Your task to perform on an android device: turn off priority inbox in the gmail app Image 0: 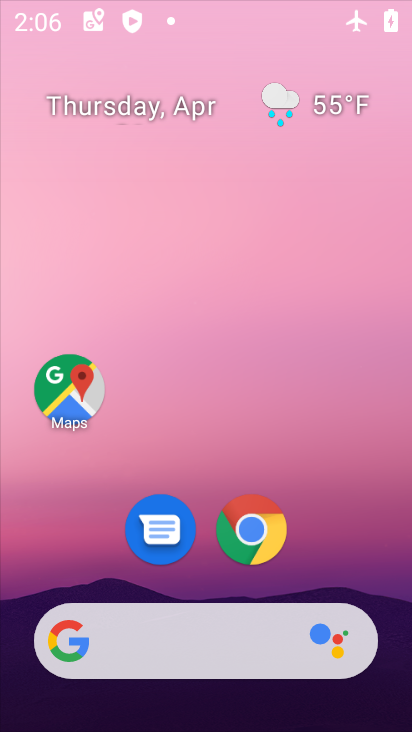
Step 0: drag from (206, 367) to (211, 262)
Your task to perform on an android device: turn off priority inbox in the gmail app Image 1: 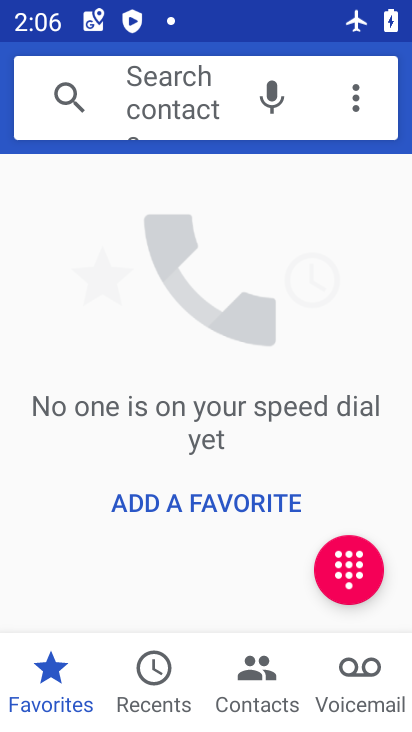
Step 1: press home button
Your task to perform on an android device: turn off priority inbox in the gmail app Image 2: 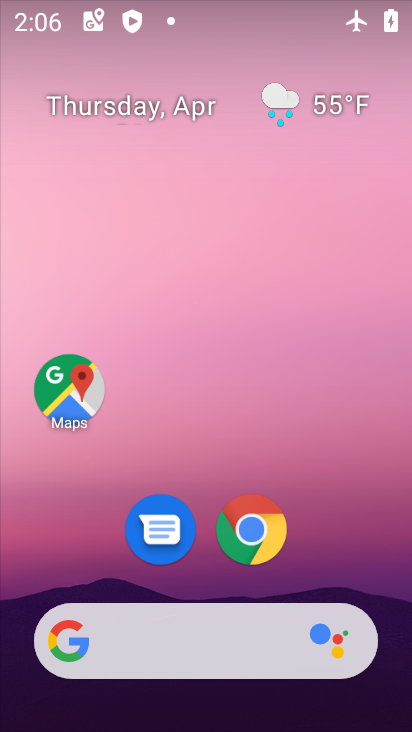
Step 2: drag from (233, 532) to (170, 175)
Your task to perform on an android device: turn off priority inbox in the gmail app Image 3: 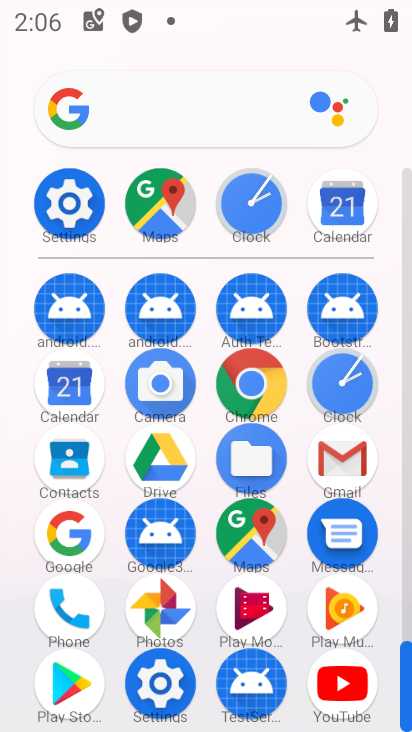
Step 3: click (342, 463)
Your task to perform on an android device: turn off priority inbox in the gmail app Image 4: 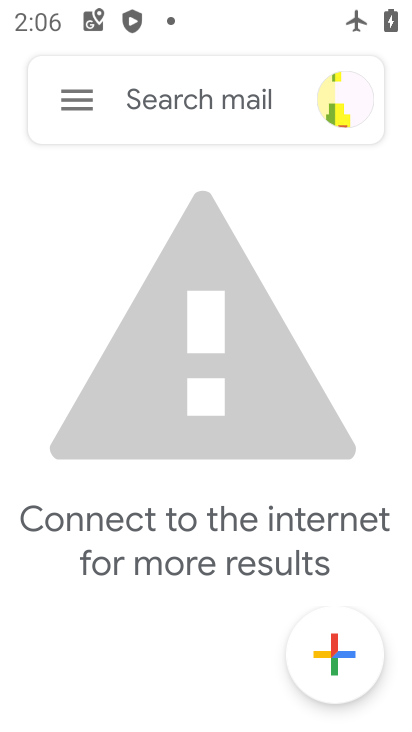
Step 4: click (69, 105)
Your task to perform on an android device: turn off priority inbox in the gmail app Image 5: 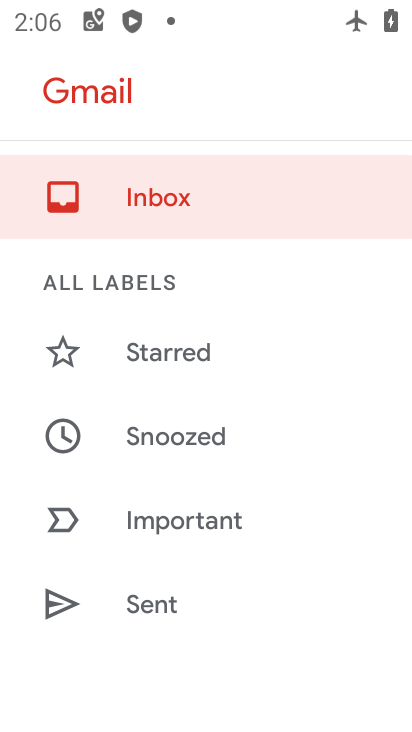
Step 5: drag from (220, 560) to (188, 234)
Your task to perform on an android device: turn off priority inbox in the gmail app Image 6: 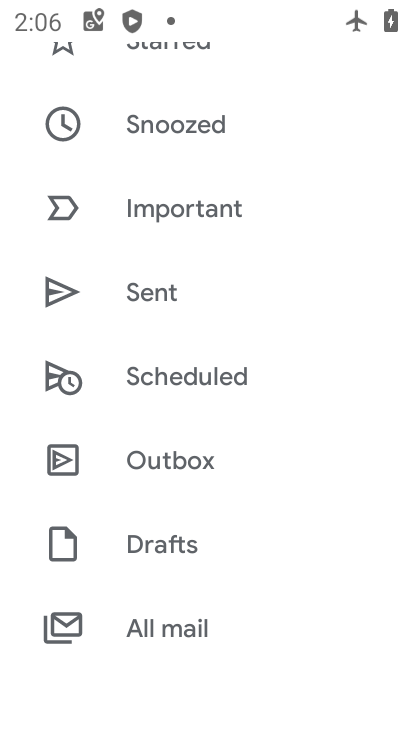
Step 6: drag from (205, 595) to (201, 292)
Your task to perform on an android device: turn off priority inbox in the gmail app Image 7: 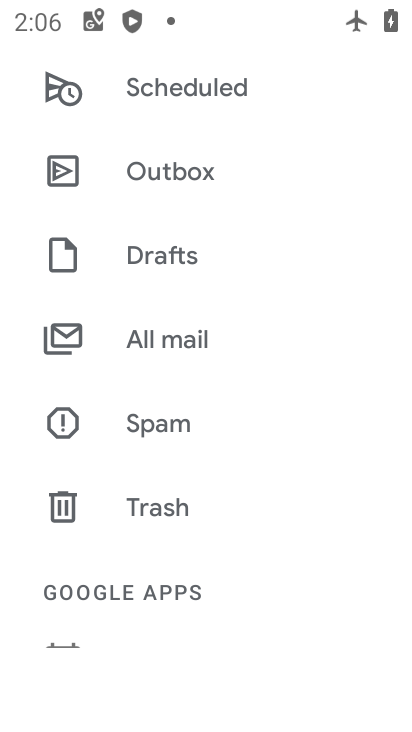
Step 7: drag from (225, 601) to (214, 252)
Your task to perform on an android device: turn off priority inbox in the gmail app Image 8: 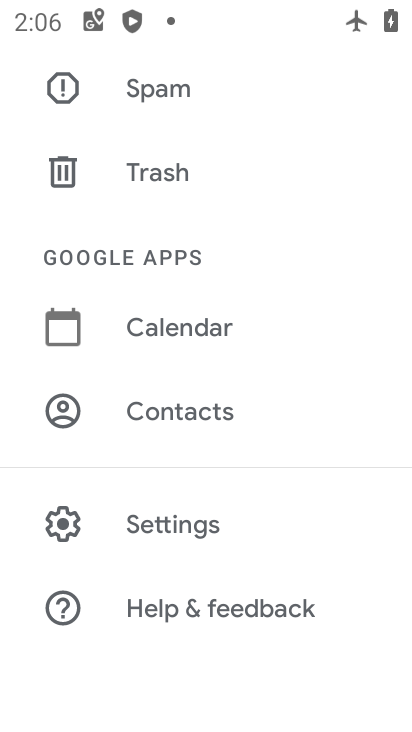
Step 8: click (210, 540)
Your task to perform on an android device: turn off priority inbox in the gmail app Image 9: 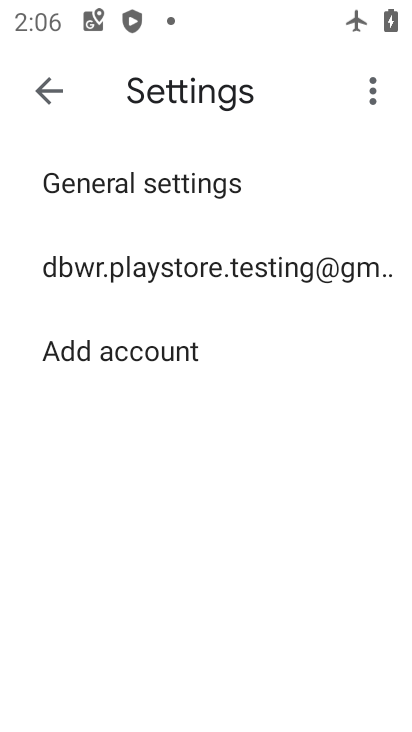
Step 9: click (213, 262)
Your task to perform on an android device: turn off priority inbox in the gmail app Image 10: 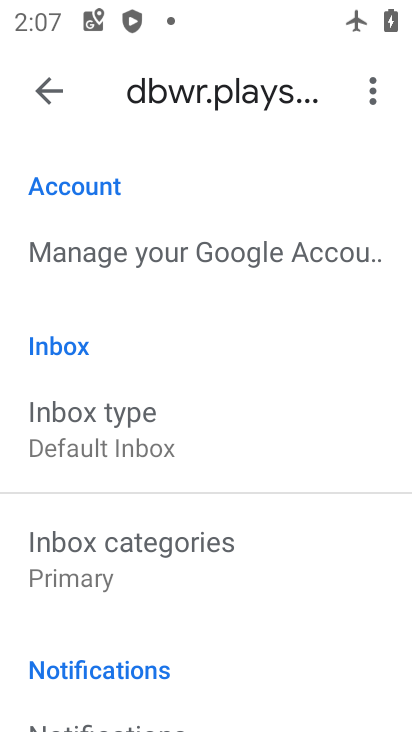
Step 10: drag from (219, 509) to (221, 323)
Your task to perform on an android device: turn off priority inbox in the gmail app Image 11: 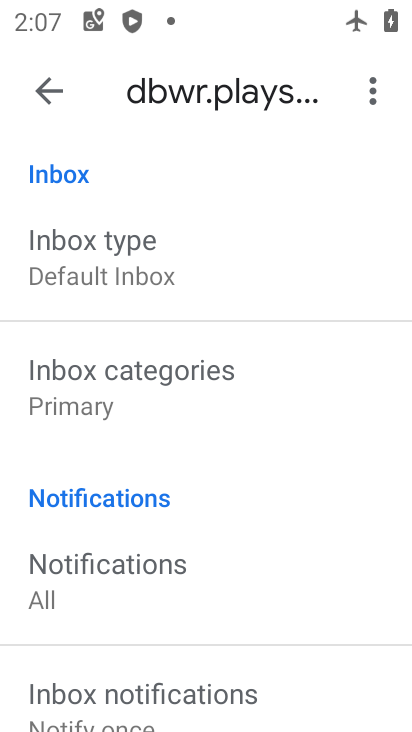
Step 11: click (206, 290)
Your task to perform on an android device: turn off priority inbox in the gmail app Image 12: 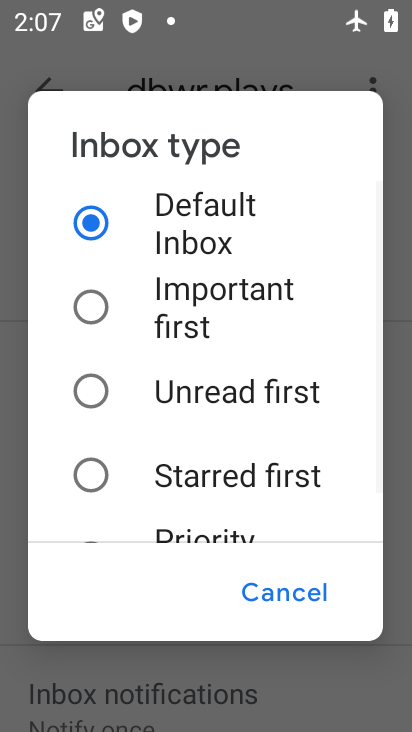
Step 12: click (289, 603)
Your task to perform on an android device: turn off priority inbox in the gmail app Image 13: 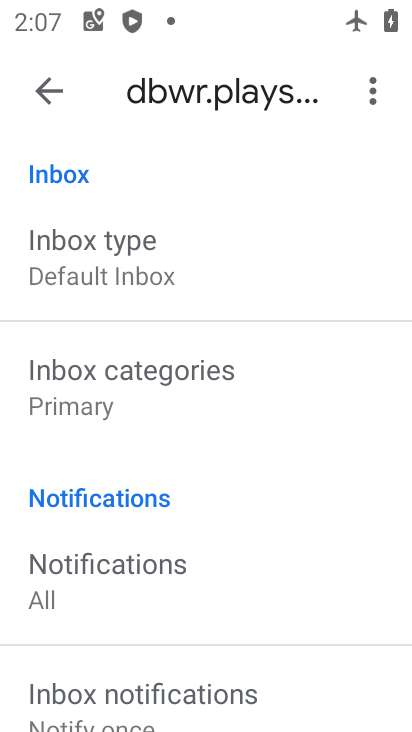
Step 13: task complete